Your task to perform on an android device: change notification settings in the gmail app Image 0: 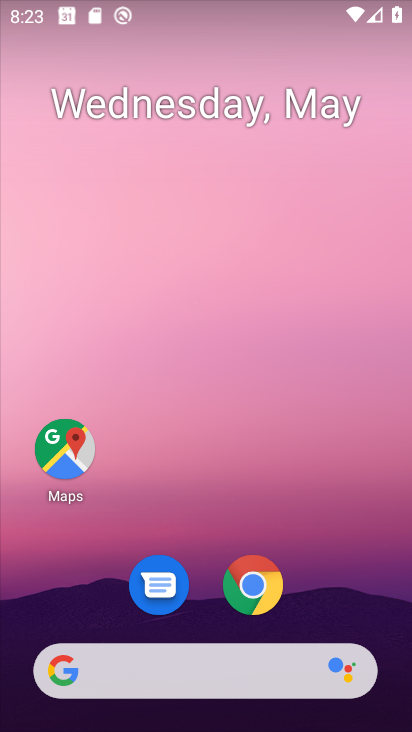
Step 0: drag from (319, 575) to (266, 28)
Your task to perform on an android device: change notification settings in the gmail app Image 1: 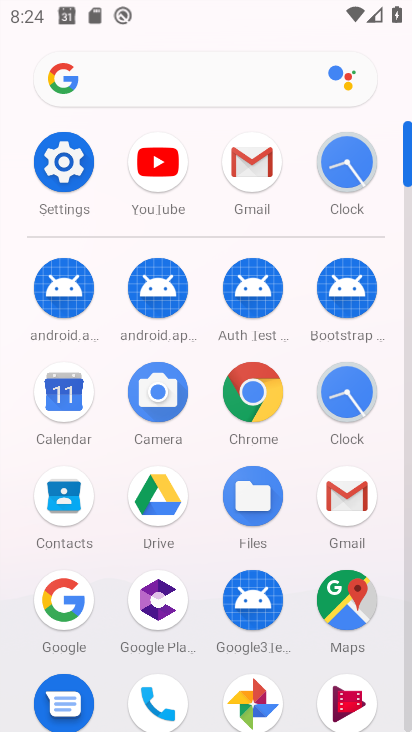
Step 1: click (266, 175)
Your task to perform on an android device: change notification settings in the gmail app Image 2: 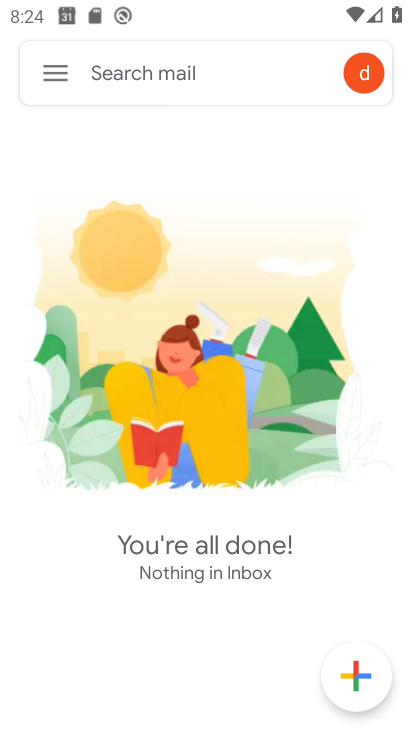
Step 2: click (49, 68)
Your task to perform on an android device: change notification settings in the gmail app Image 3: 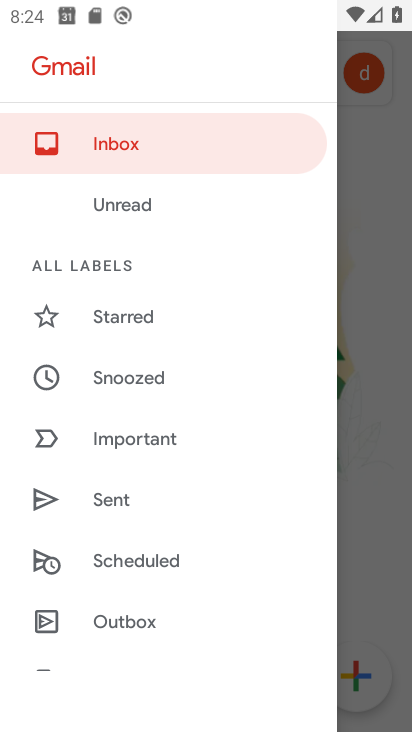
Step 3: drag from (159, 558) to (143, 35)
Your task to perform on an android device: change notification settings in the gmail app Image 4: 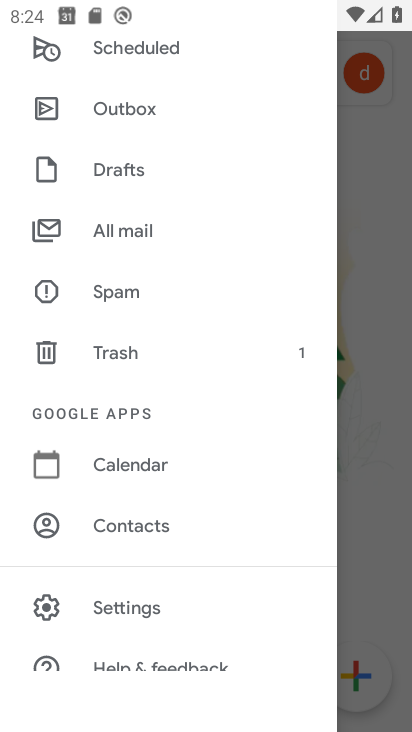
Step 4: click (145, 597)
Your task to perform on an android device: change notification settings in the gmail app Image 5: 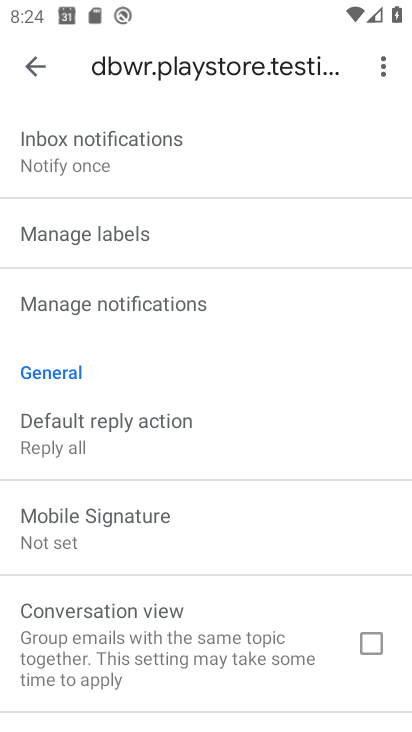
Step 5: click (228, 296)
Your task to perform on an android device: change notification settings in the gmail app Image 6: 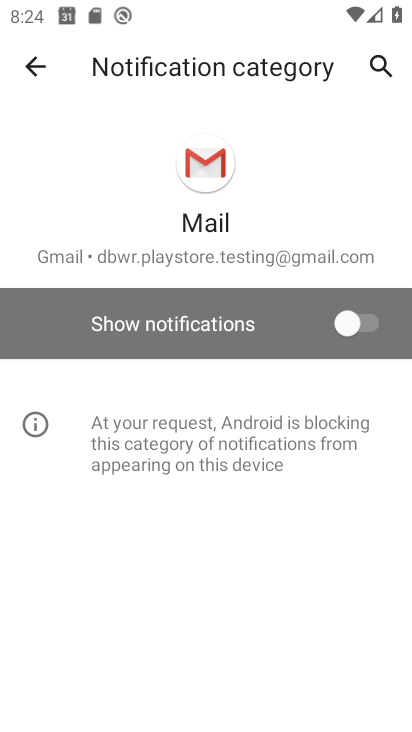
Step 6: click (368, 314)
Your task to perform on an android device: change notification settings in the gmail app Image 7: 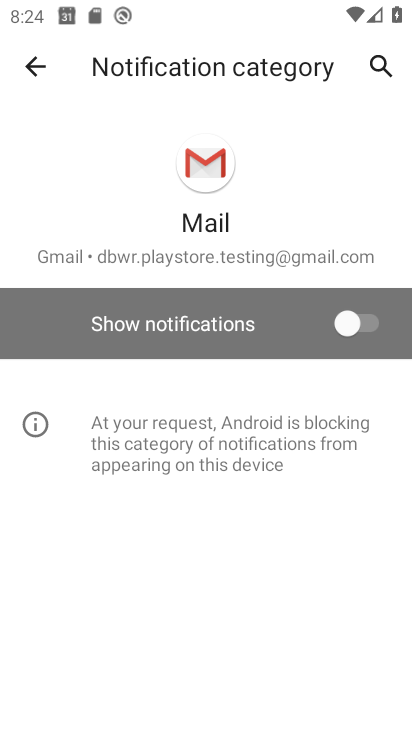
Step 7: click (350, 322)
Your task to perform on an android device: change notification settings in the gmail app Image 8: 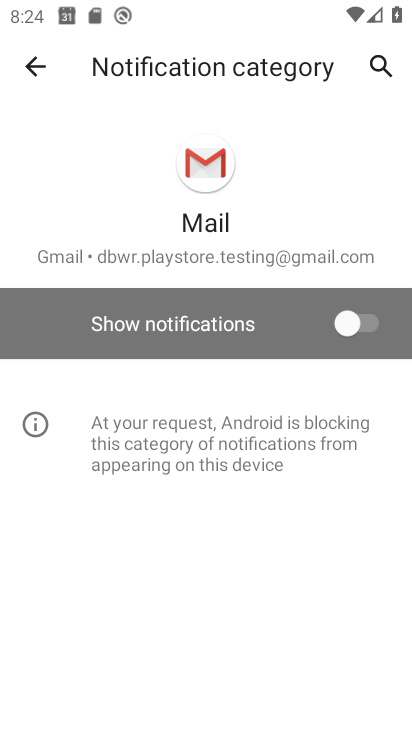
Step 8: click (34, 59)
Your task to perform on an android device: change notification settings in the gmail app Image 9: 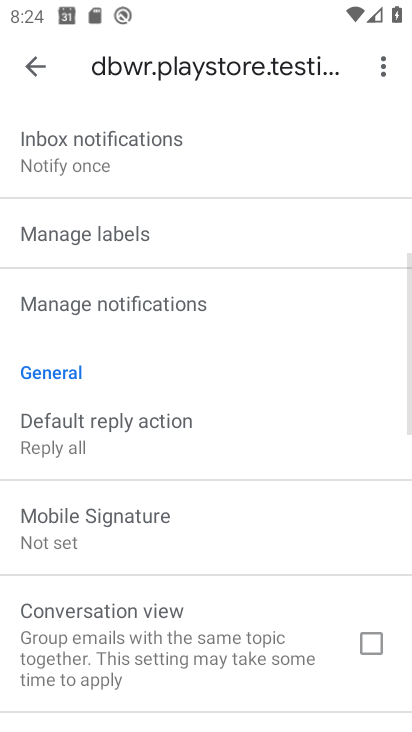
Step 9: click (37, 62)
Your task to perform on an android device: change notification settings in the gmail app Image 10: 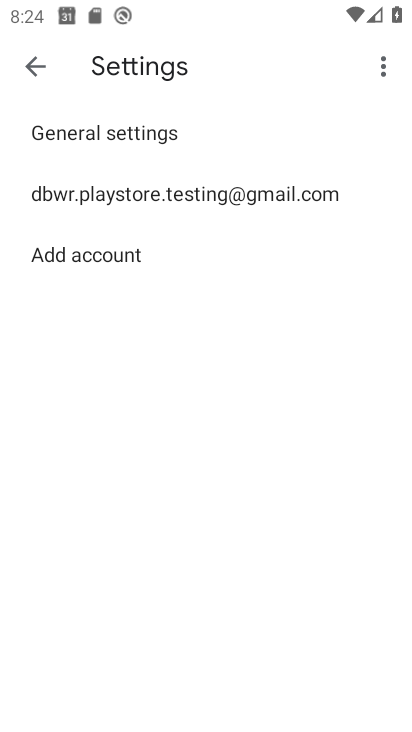
Step 10: click (88, 122)
Your task to perform on an android device: change notification settings in the gmail app Image 11: 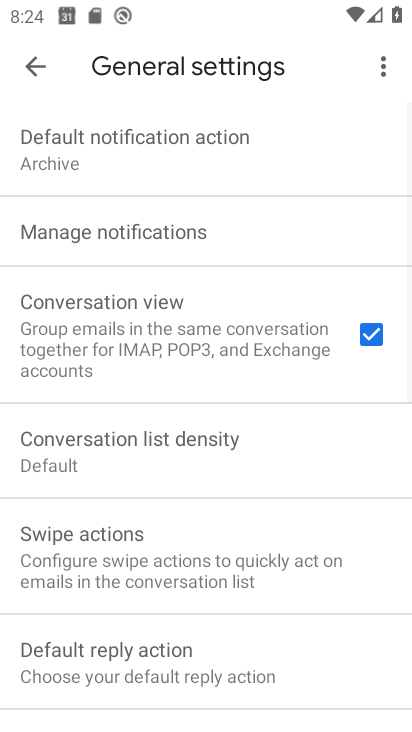
Step 11: click (158, 215)
Your task to perform on an android device: change notification settings in the gmail app Image 12: 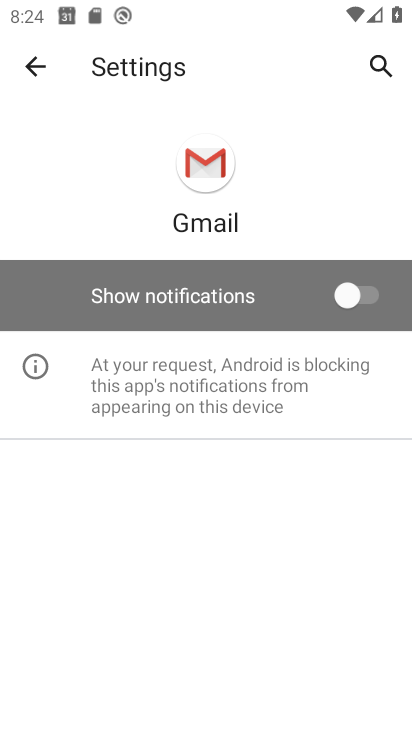
Step 12: click (350, 292)
Your task to perform on an android device: change notification settings in the gmail app Image 13: 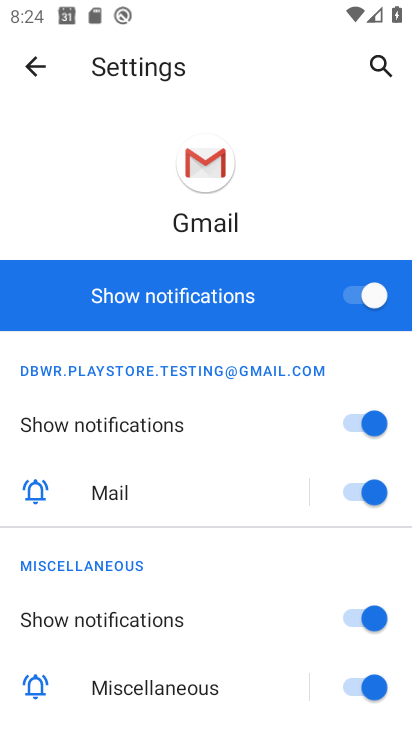
Step 13: task complete